Your task to perform on an android device: check google app version Image 0: 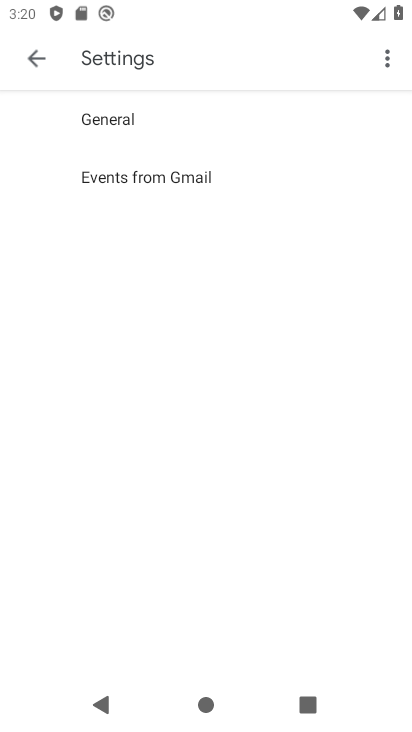
Step 0: press home button
Your task to perform on an android device: check google app version Image 1: 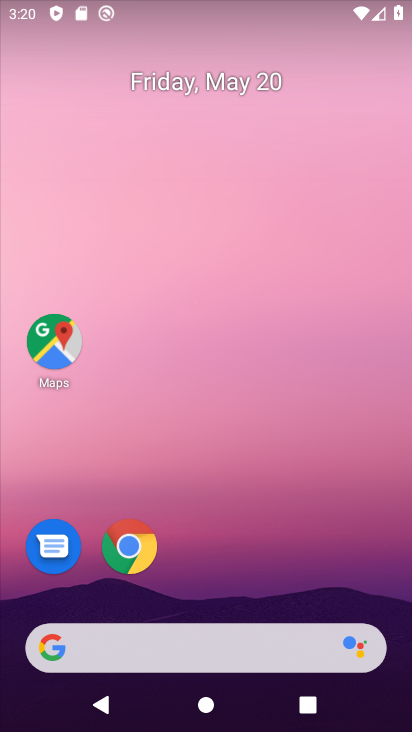
Step 1: drag from (253, 555) to (278, 207)
Your task to perform on an android device: check google app version Image 2: 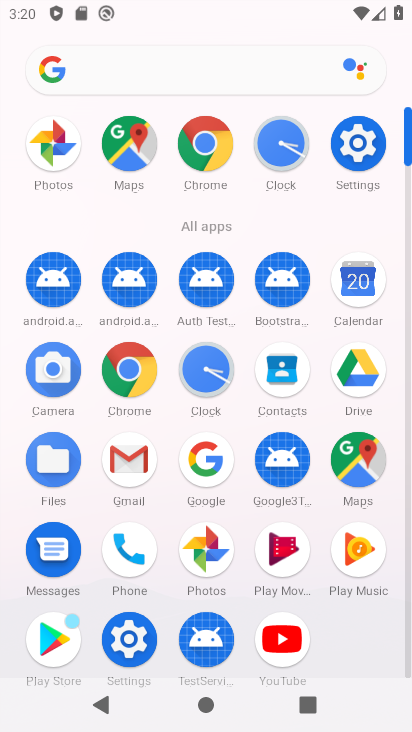
Step 2: click (355, 124)
Your task to perform on an android device: check google app version Image 3: 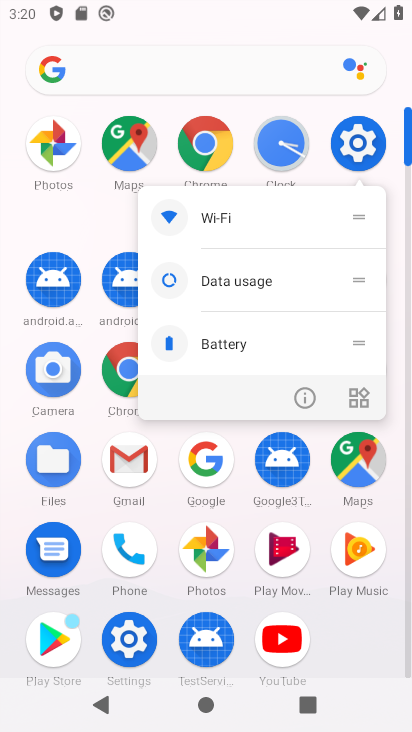
Step 3: click (359, 132)
Your task to perform on an android device: check google app version Image 4: 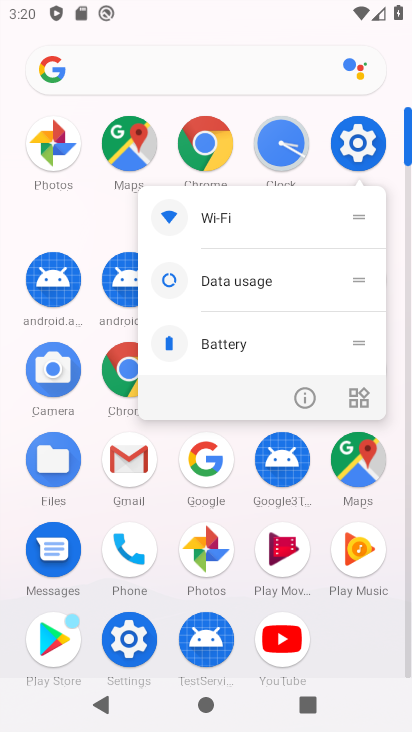
Step 4: click (359, 152)
Your task to perform on an android device: check google app version Image 5: 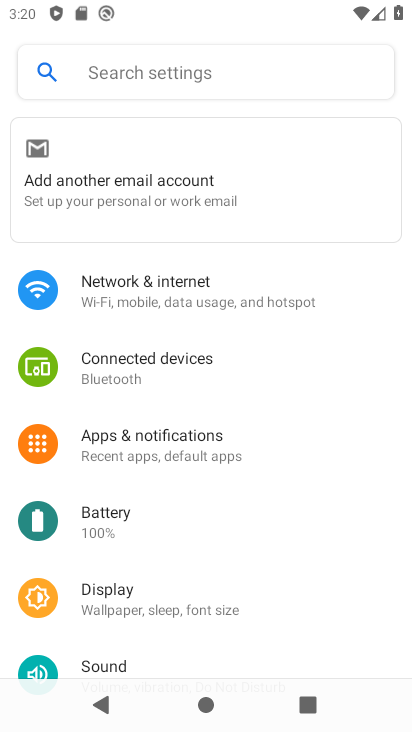
Step 5: press home button
Your task to perform on an android device: check google app version Image 6: 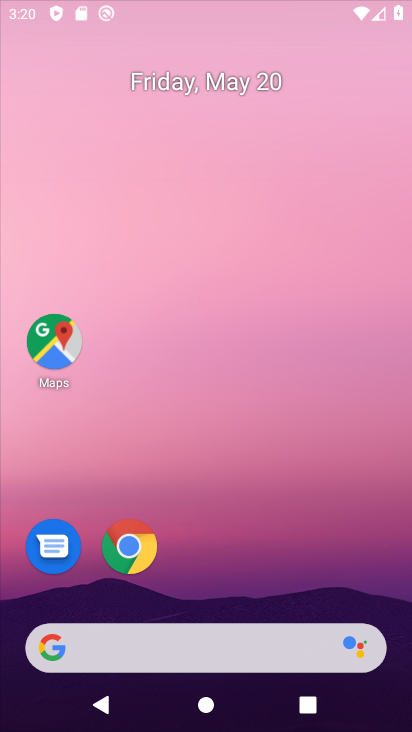
Step 6: drag from (260, 504) to (279, 11)
Your task to perform on an android device: check google app version Image 7: 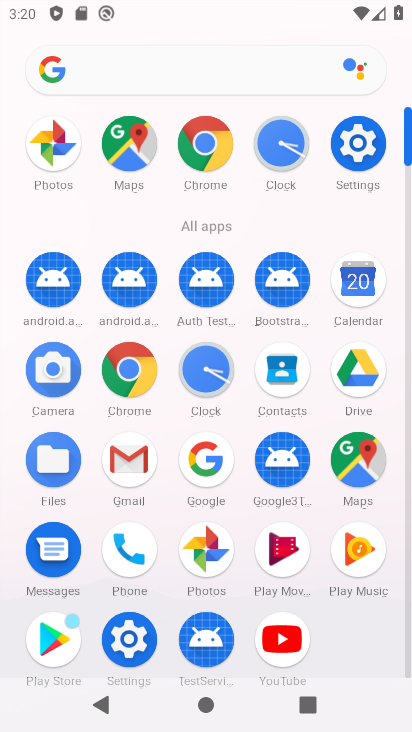
Step 7: click (203, 466)
Your task to perform on an android device: check google app version Image 8: 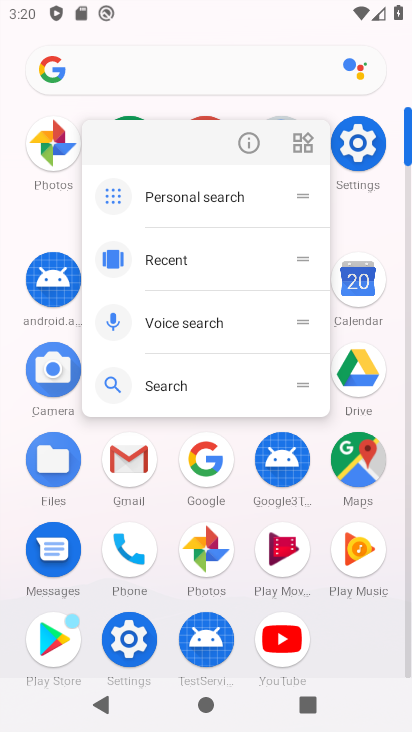
Step 8: click (251, 154)
Your task to perform on an android device: check google app version Image 9: 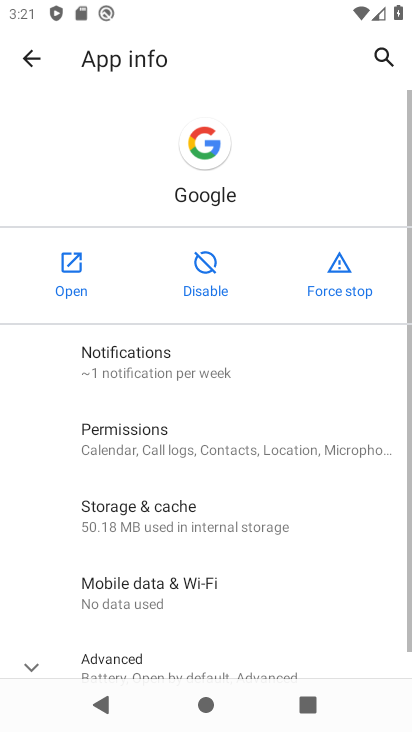
Step 9: drag from (247, 551) to (268, 92)
Your task to perform on an android device: check google app version Image 10: 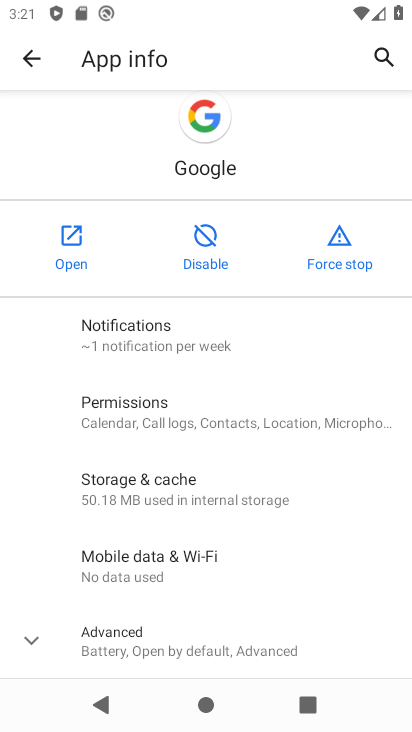
Step 10: click (198, 641)
Your task to perform on an android device: check google app version Image 11: 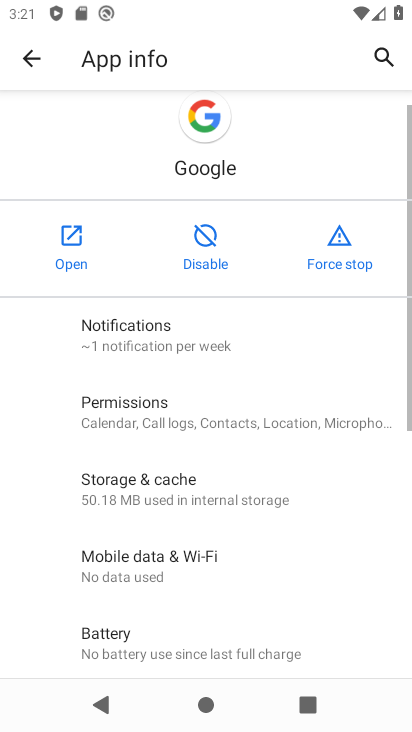
Step 11: task complete